Your task to perform on an android device: turn on the 24-hour format for clock Image 0: 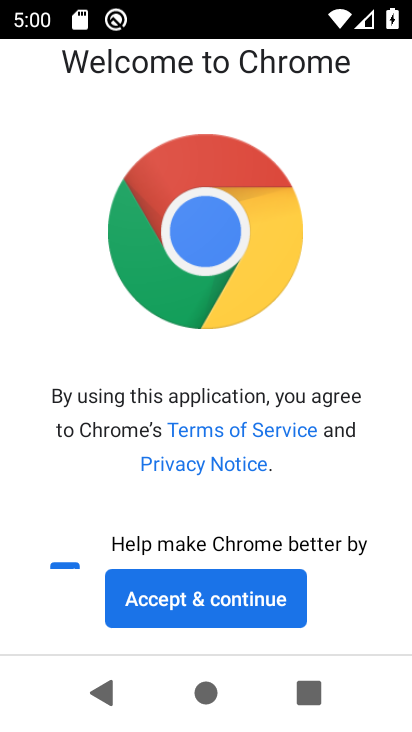
Step 0: press home button
Your task to perform on an android device: turn on the 24-hour format for clock Image 1: 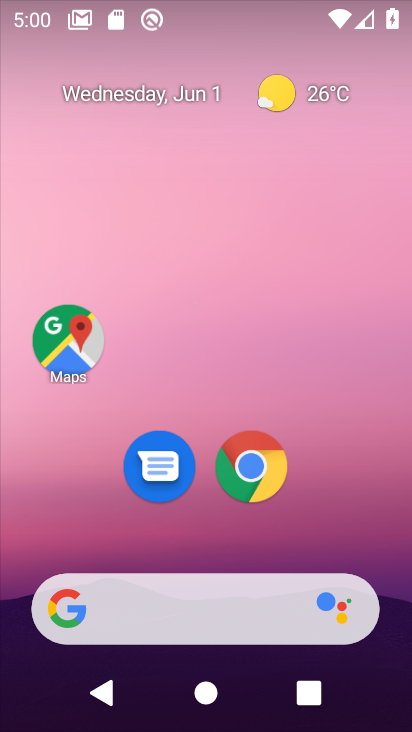
Step 1: drag from (317, 367) to (268, 226)
Your task to perform on an android device: turn on the 24-hour format for clock Image 2: 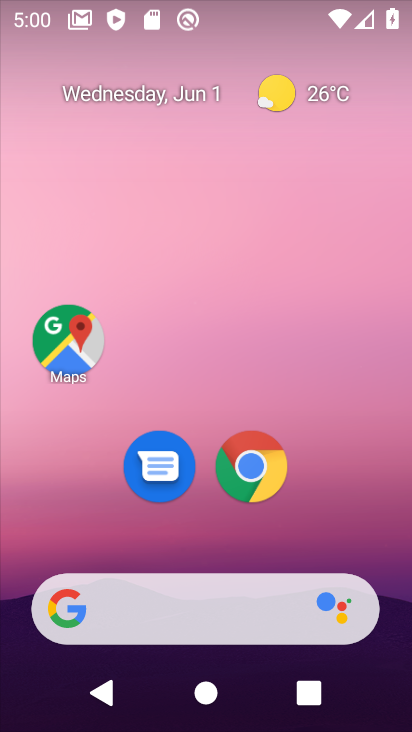
Step 2: drag from (334, 457) to (214, 33)
Your task to perform on an android device: turn on the 24-hour format for clock Image 3: 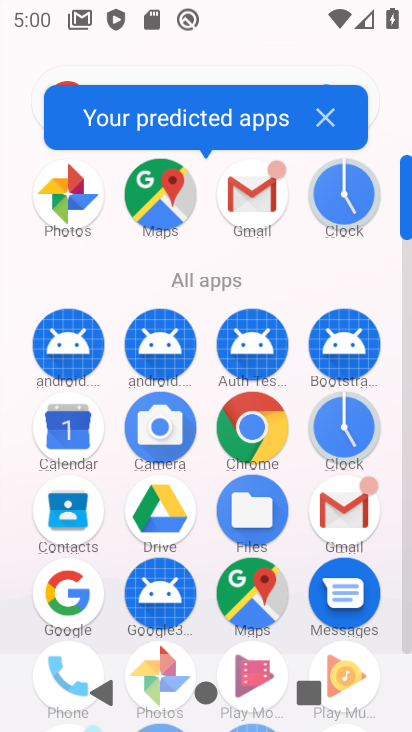
Step 3: click (345, 196)
Your task to perform on an android device: turn on the 24-hour format for clock Image 4: 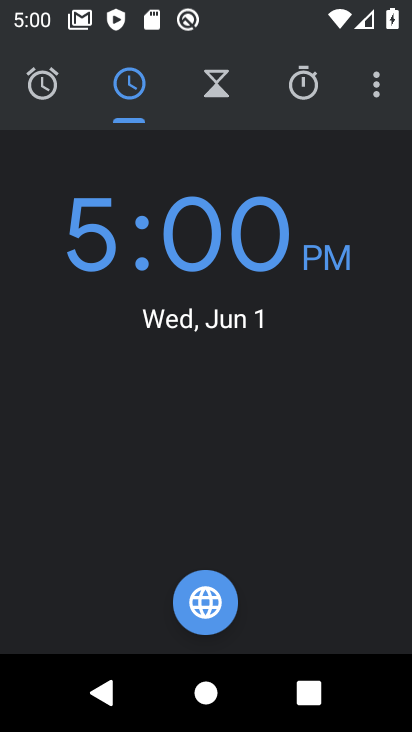
Step 4: click (376, 90)
Your task to perform on an android device: turn on the 24-hour format for clock Image 5: 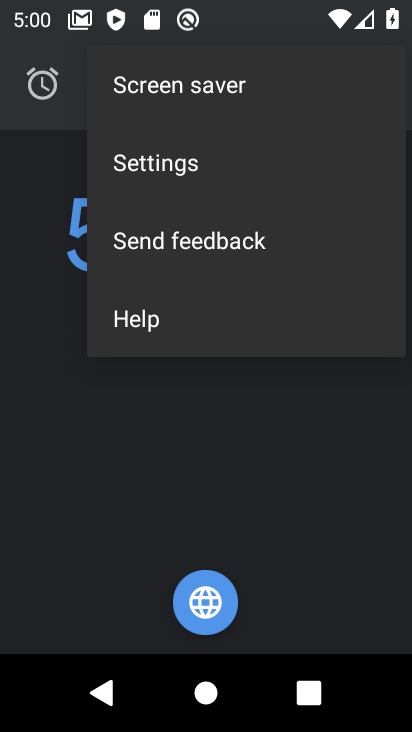
Step 5: click (149, 164)
Your task to perform on an android device: turn on the 24-hour format for clock Image 6: 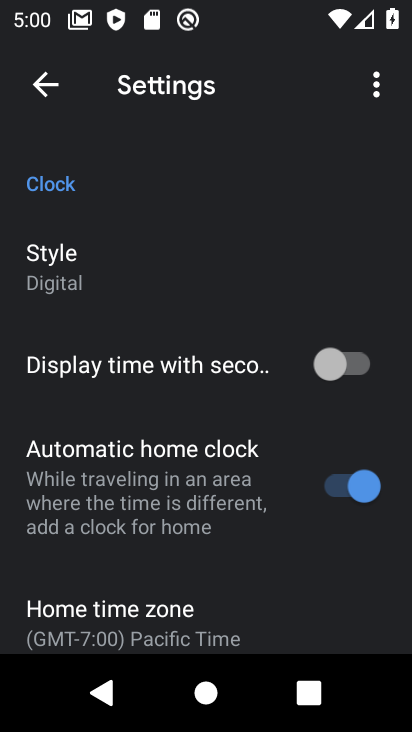
Step 6: drag from (296, 525) to (223, 171)
Your task to perform on an android device: turn on the 24-hour format for clock Image 7: 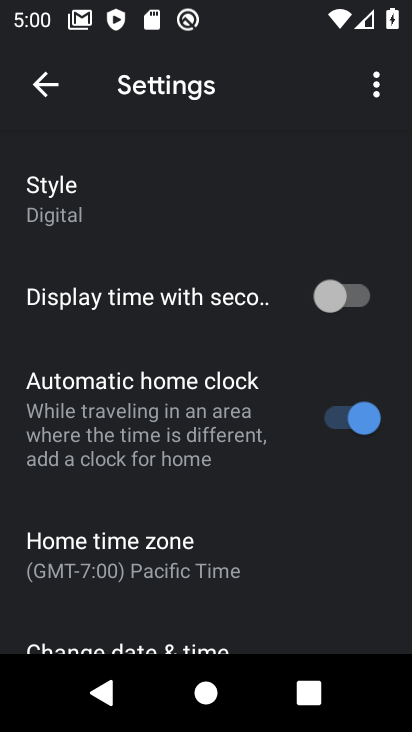
Step 7: drag from (263, 521) to (205, 162)
Your task to perform on an android device: turn on the 24-hour format for clock Image 8: 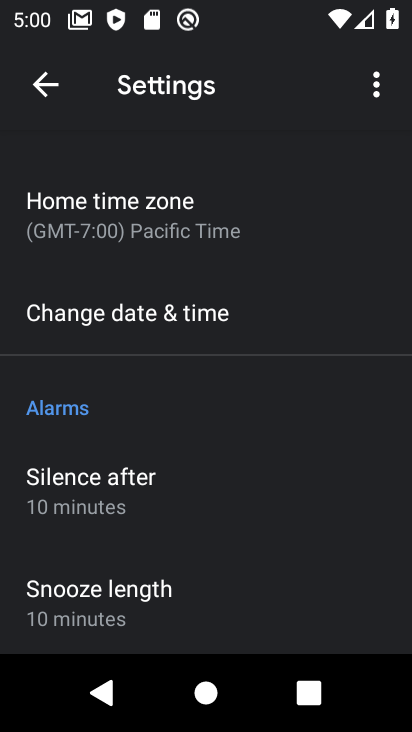
Step 8: click (146, 309)
Your task to perform on an android device: turn on the 24-hour format for clock Image 9: 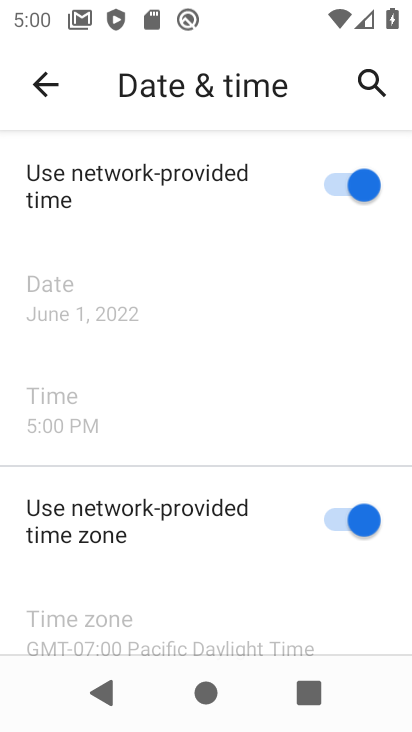
Step 9: drag from (264, 400) to (249, 76)
Your task to perform on an android device: turn on the 24-hour format for clock Image 10: 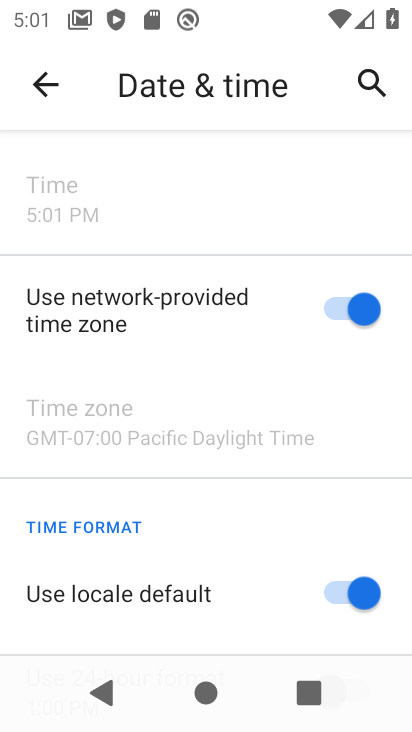
Step 10: drag from (274, 517) to (351, 503)
Your task to perform on an android device: turn on the 24-hour format for clock Image 11: 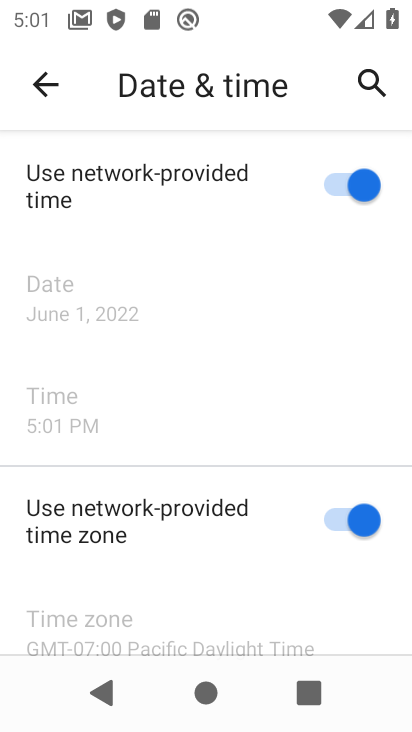
Step 11: drag from (283, 528) to (281, 273)
Your task to perform on an android device: turn on the 24-hour format for clock Image 12: 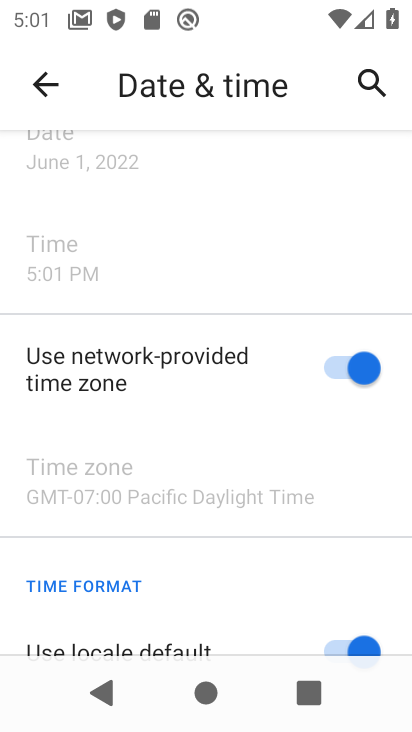
Step 12: drag from (322, 524) to (261, 87)
Your task to perform on an android device: turn on the 24-hour format for clock Image 13: 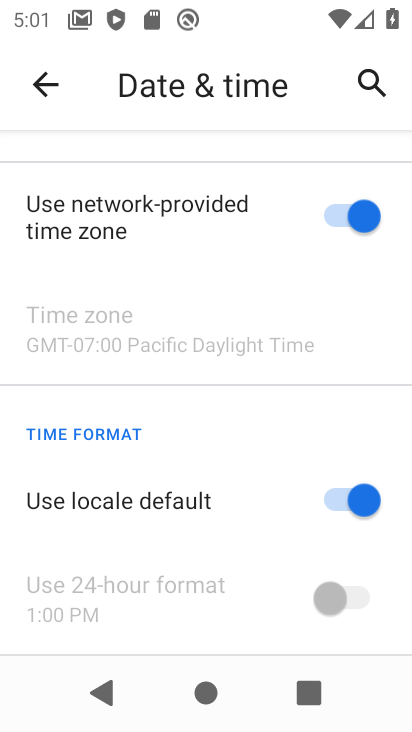
Step 13: click (356, 503)
Your task to perform on an android device: turn on the 24-hour format for clock Image 14: 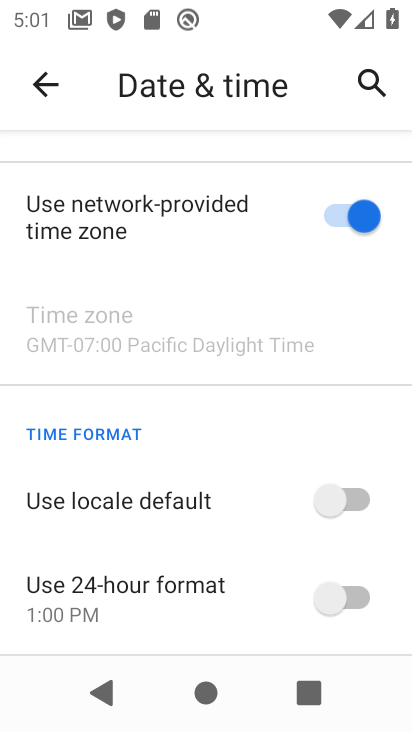
Step 14: click (322, 594)
Your task to perform on an android device: turn on the 24-hour format for clock Image 15: 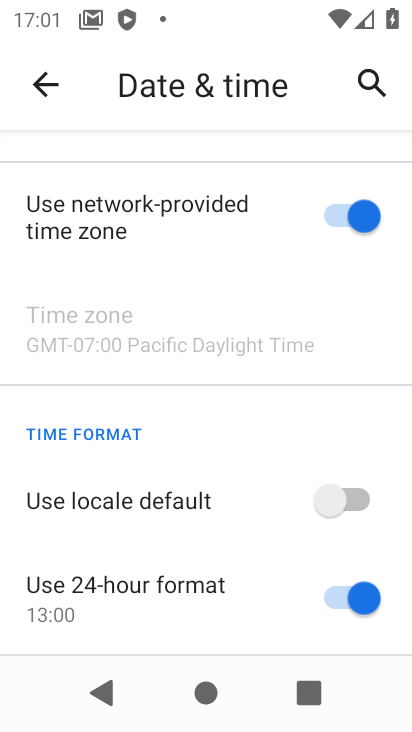
Step 15: task complete